Your task to perform on an android device: Open privacy settings Image 0: 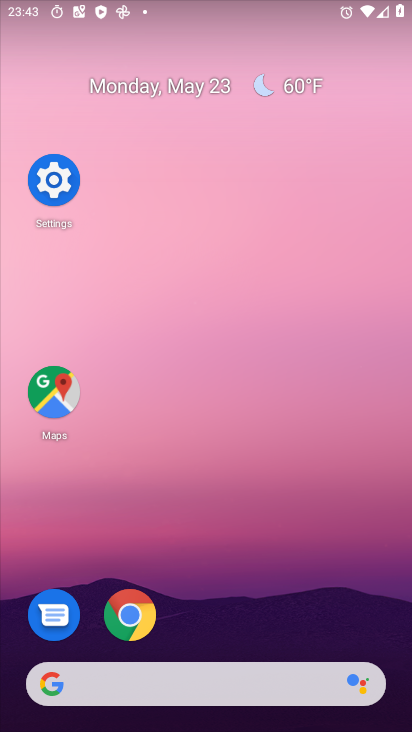
Step 0: drag from (233, 591) to (297, 134)
Your task to perform on an android device: Open privacy settings Image 1: 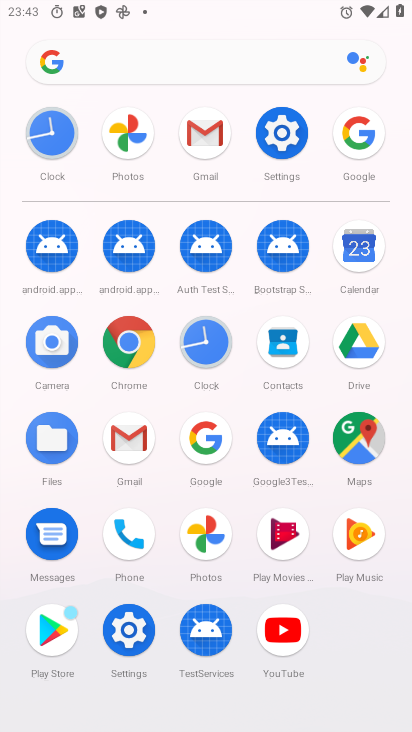
Step 1: click (283, 136)
Your task to perform on an android device: Open privacy settings Image 2: 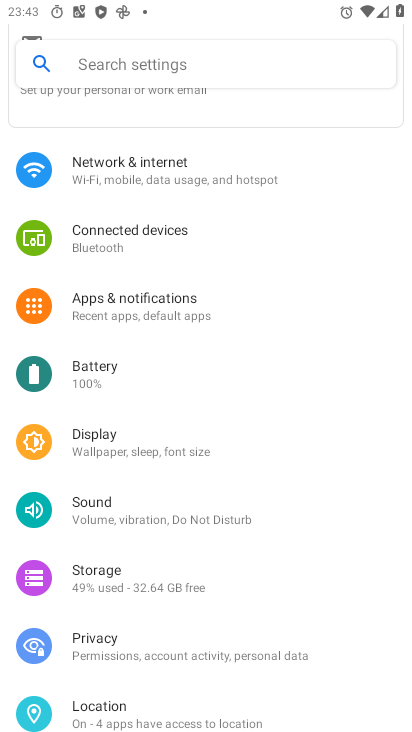
Step 2: click (143, 640)
Your task to perform on an android device: Open privacy settings Image 3: 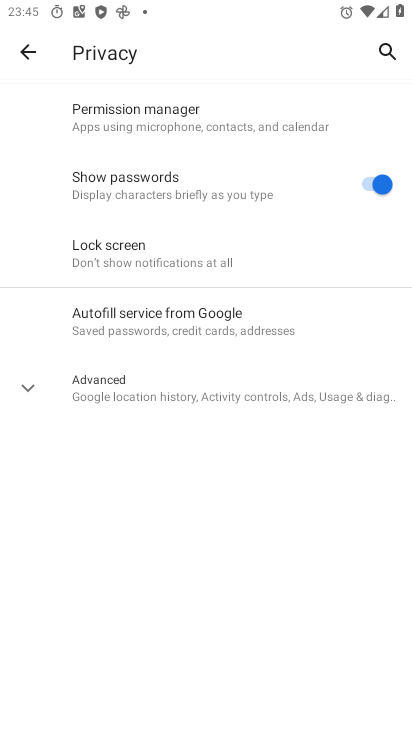
Step 3: task complete